Your task to perform on an android device: Open battery settings Image 0: 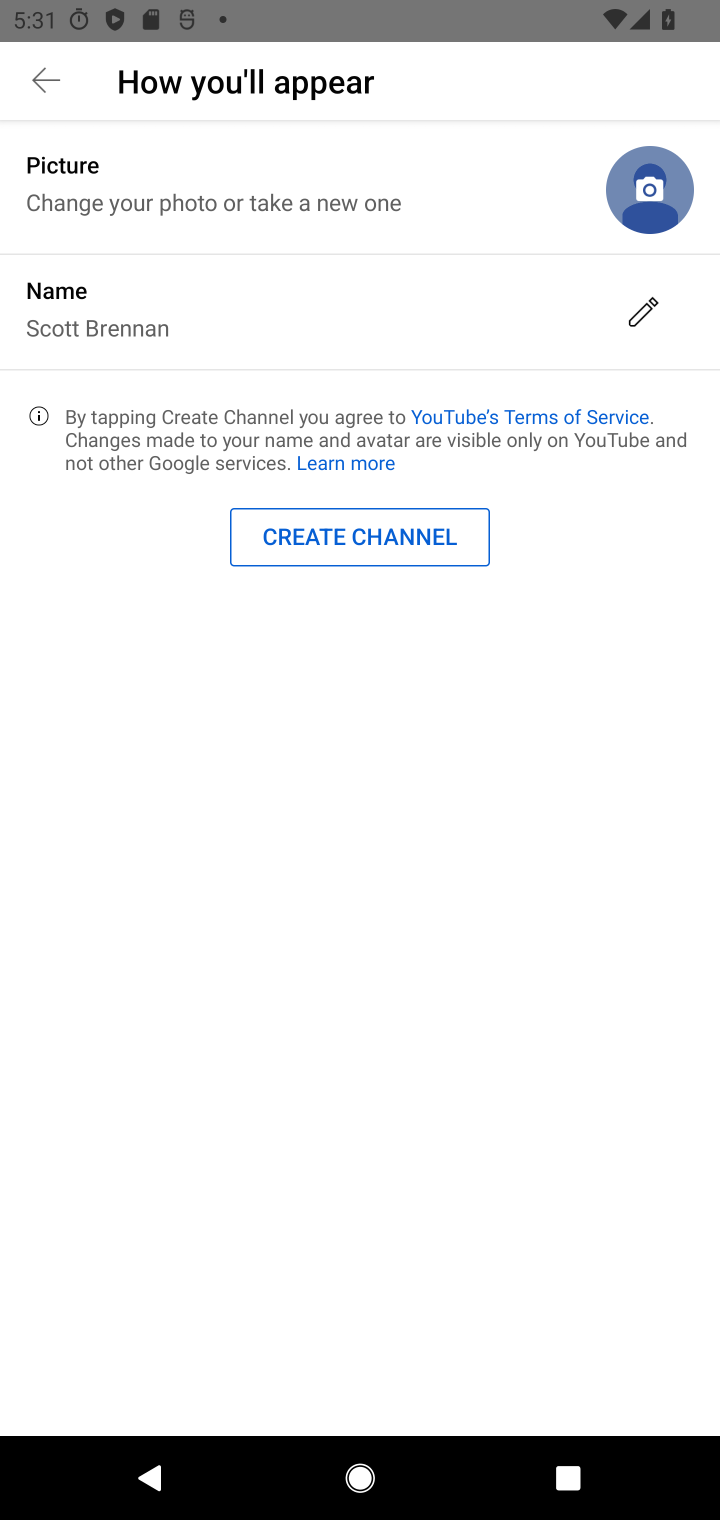
Step 0: press home button
Your task to perform on an android device: Open battery settings Image 1: 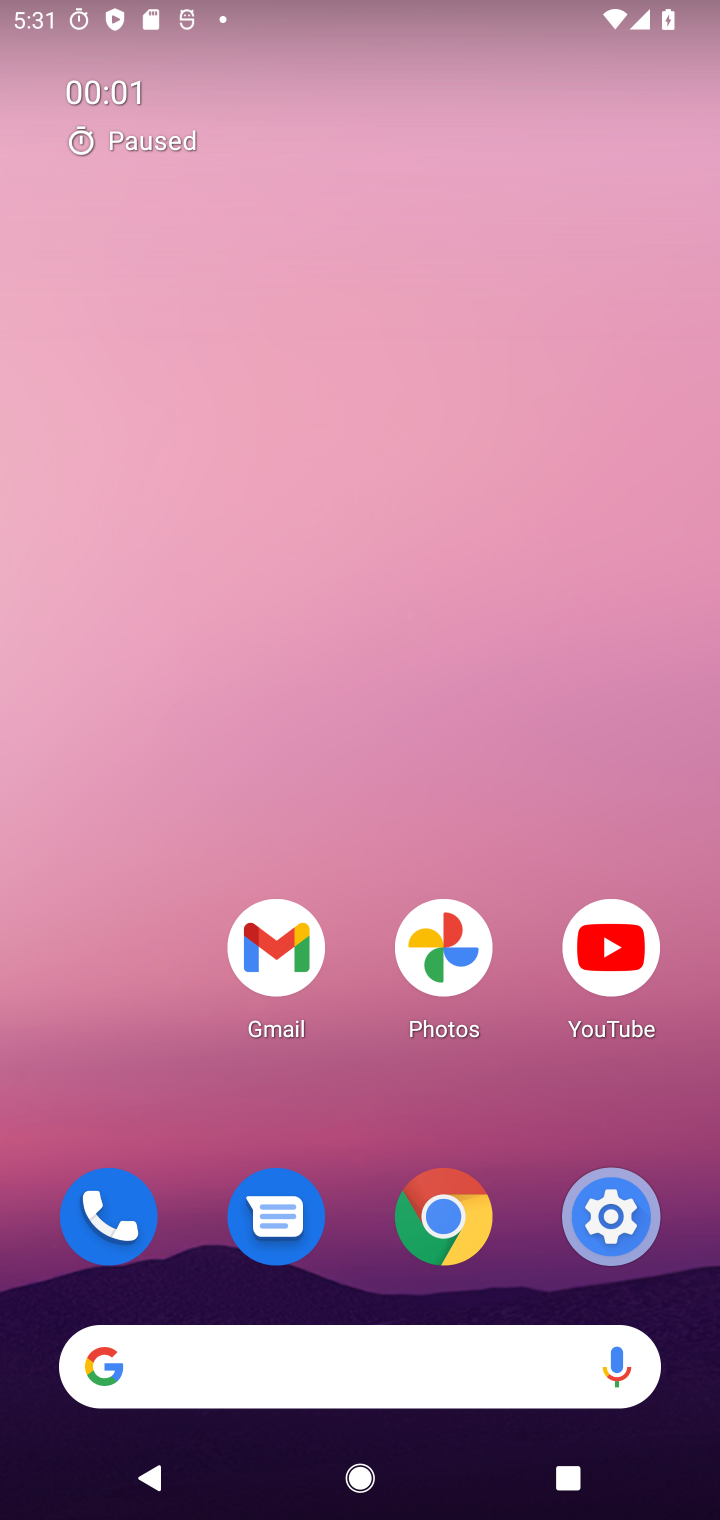
Step 1: drag from (349, 1077) to (387, 228)
Your task to perform on an android device: Open battery settings Image 2: 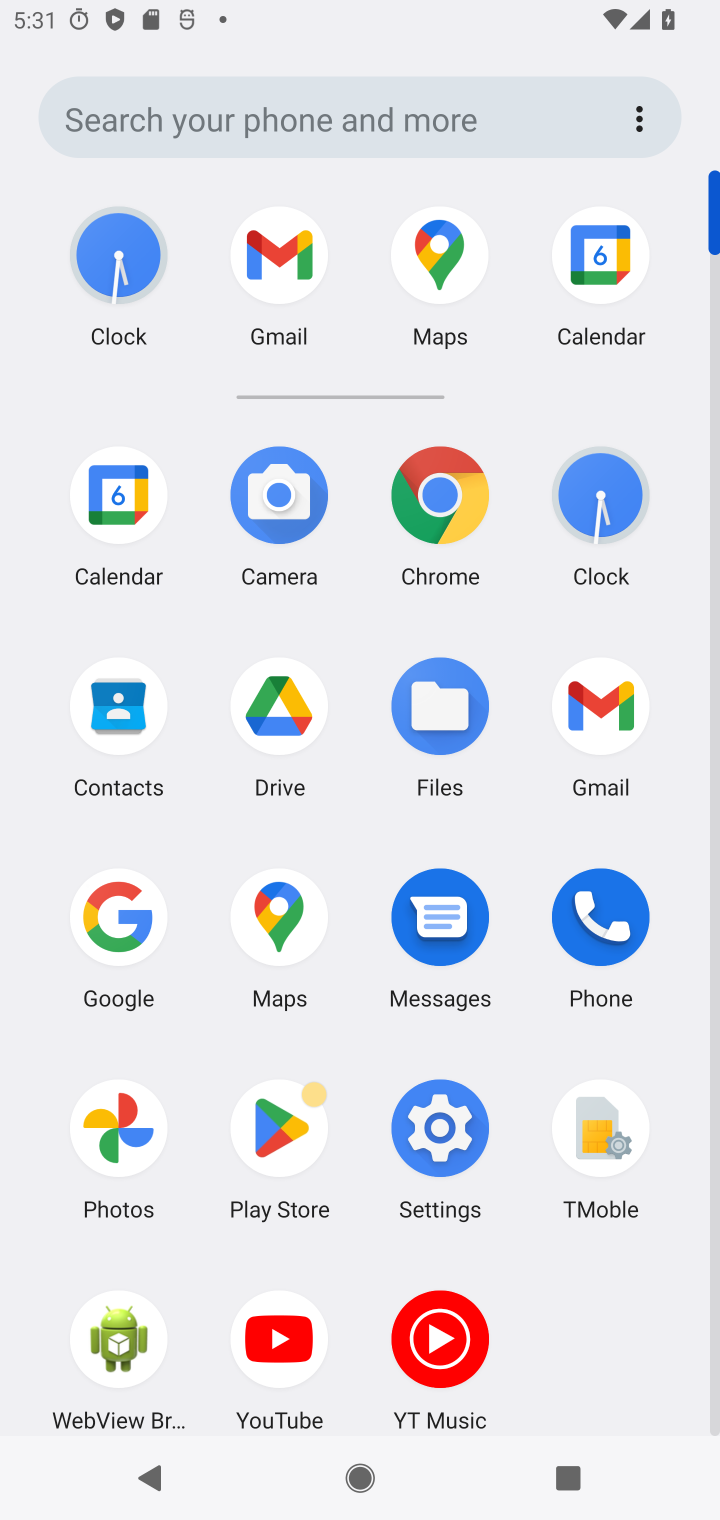
Step 2: click (451, 1114)
Your task to perform on an android device: Open battery settings Image 3: 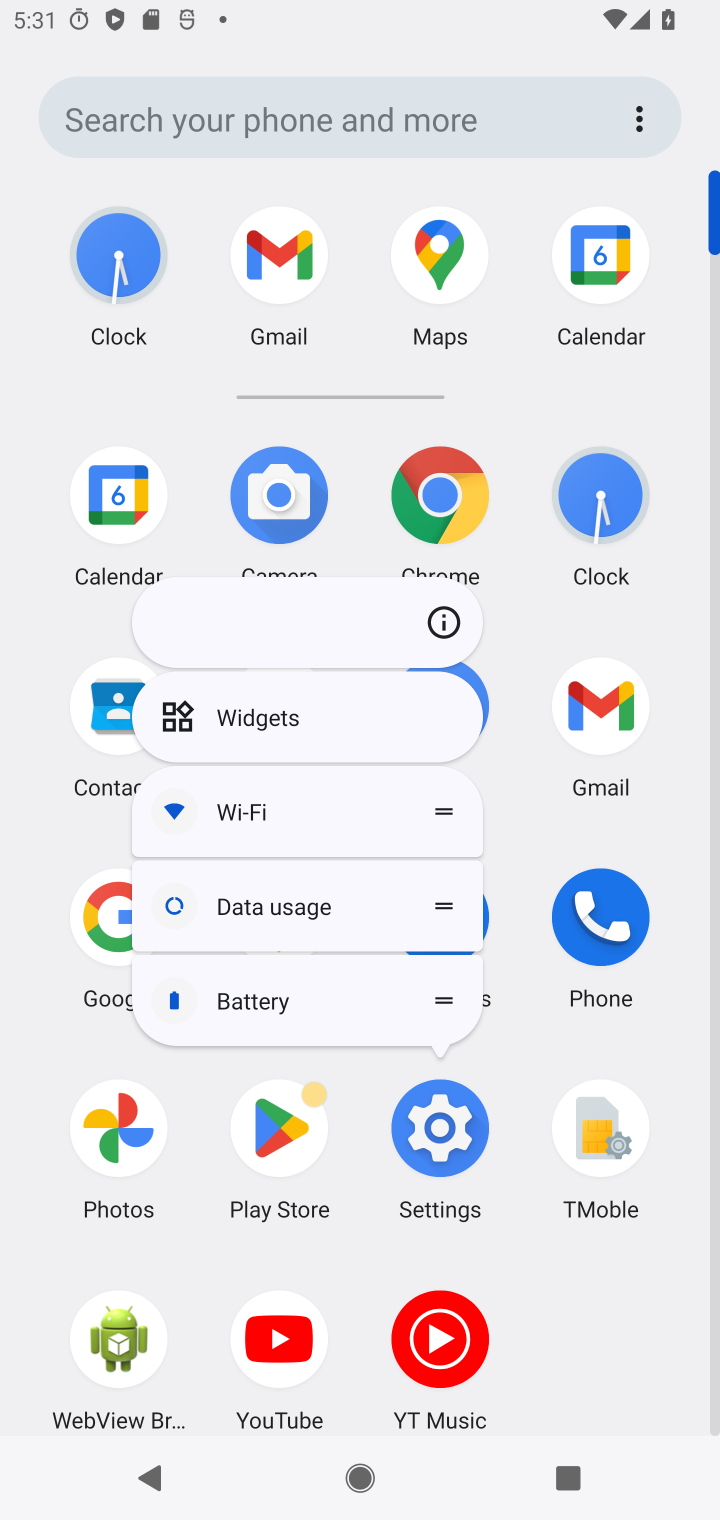
Step 3: click (451, 1110)
Your task to perform on an android device: Open battery settings Image 4: 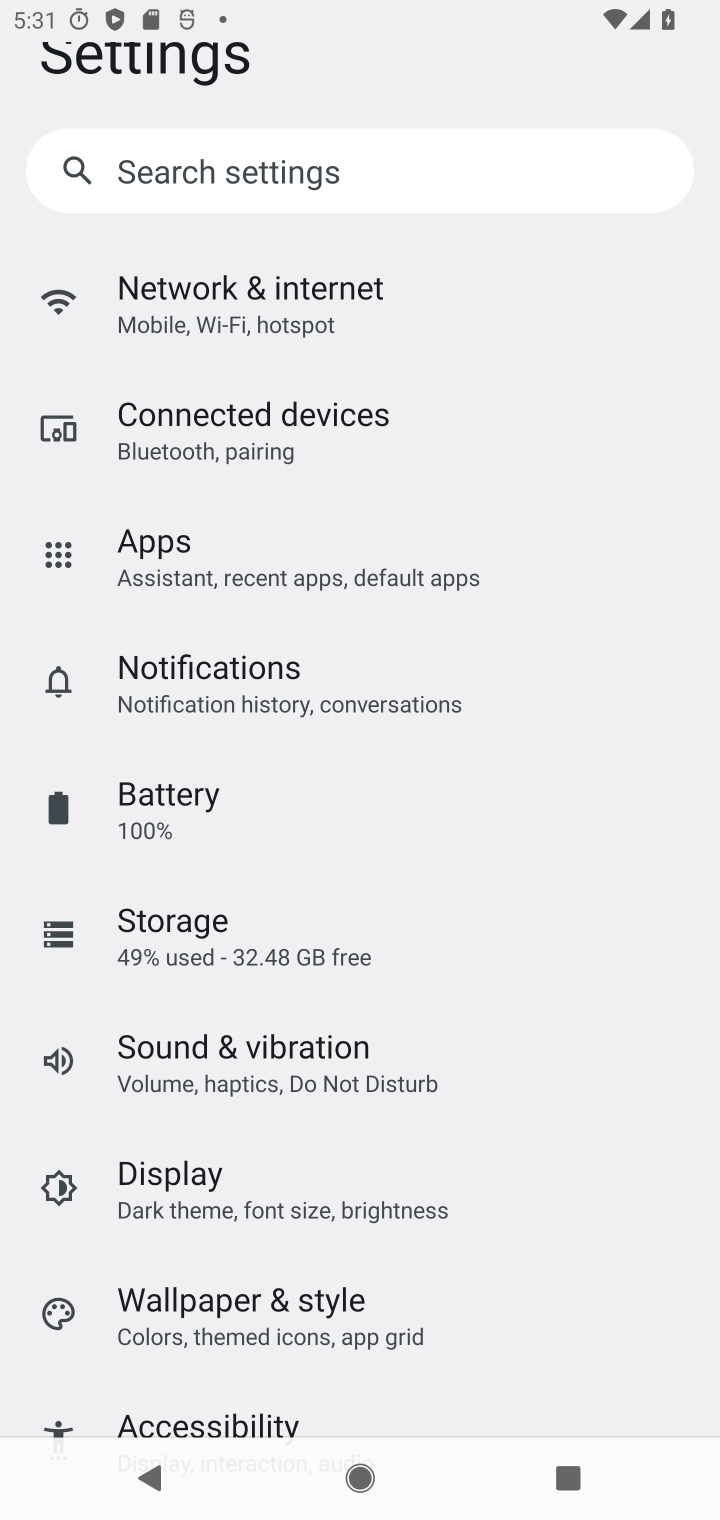
Step 4: click (221, 838)
Your task to perform on an android device: Open battery settings Image 5: 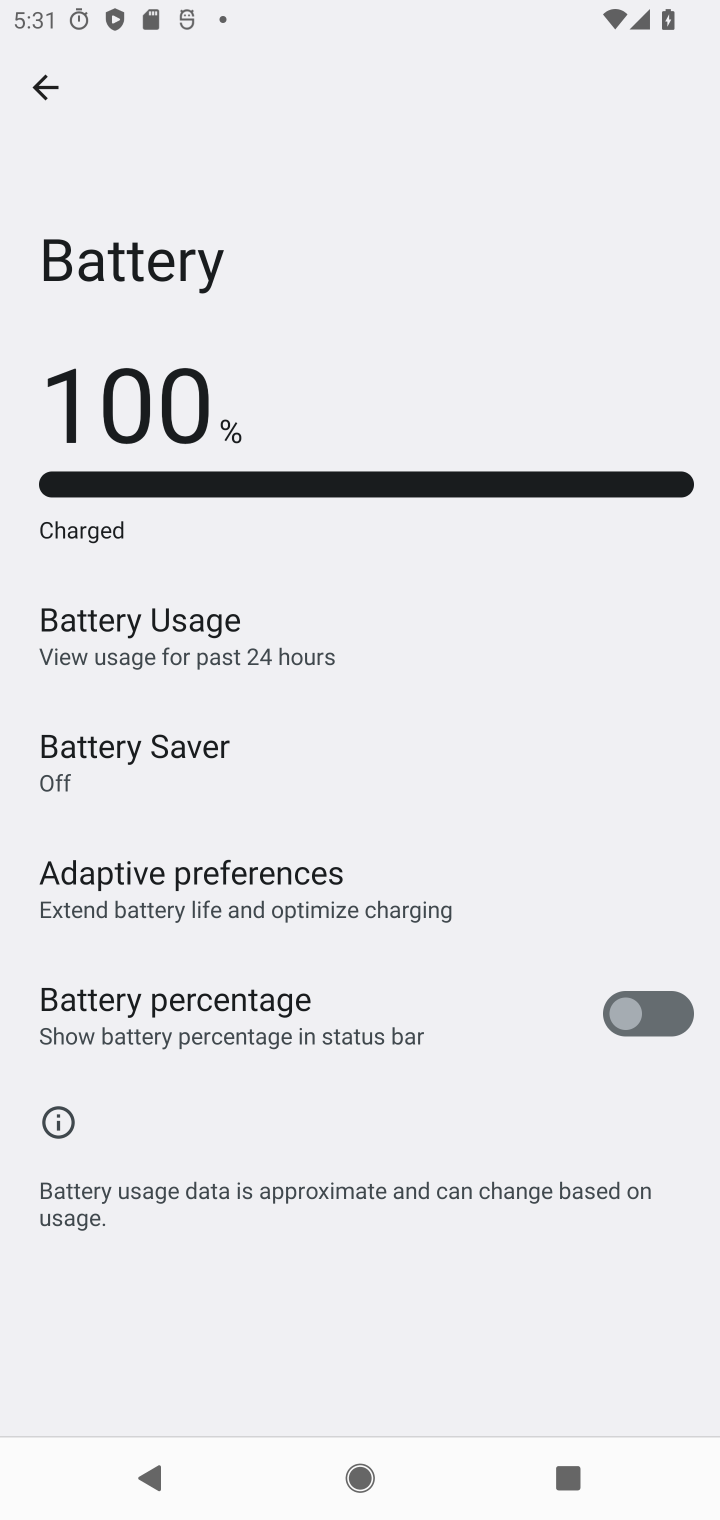
Step 5: task complete